Your task to perform on an android device: allow notifications from all sites in the chrome app Image 0: 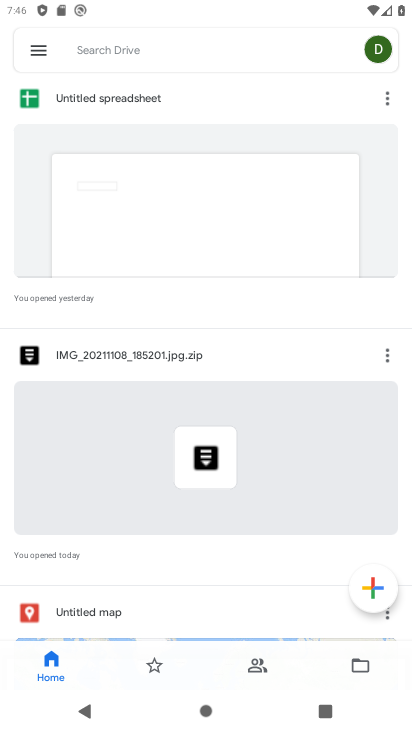
Step 0: press home button
Your task to perform on an android device: allow notifications from all sites in the chrome app Image 1: 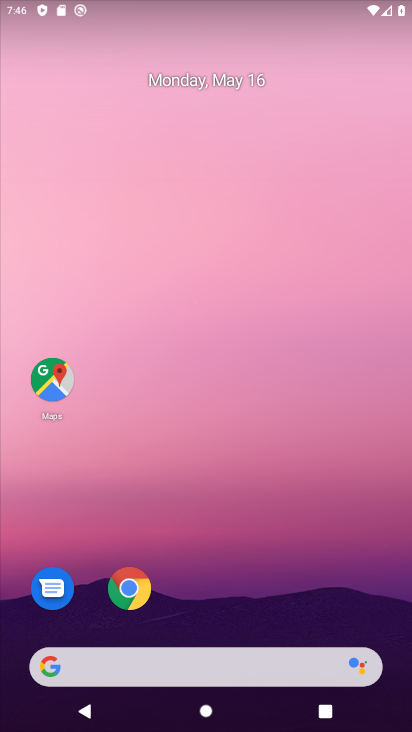
Step 1: click (126, 581)
Your task to perform on an android device: allow notifications from all sites in the chrome app Image 2: 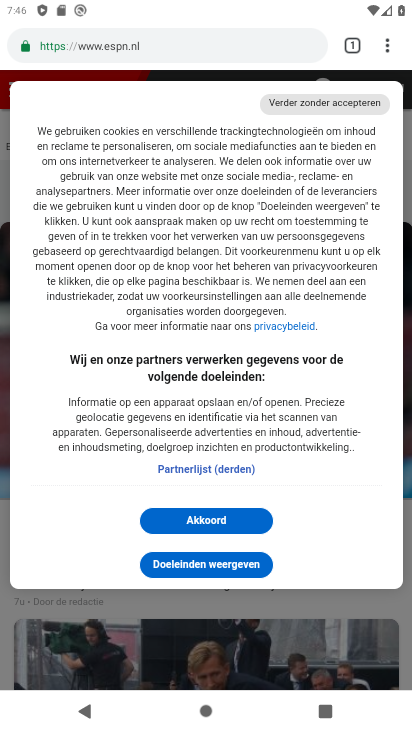
Step 2: drag from (393, 34) to (209, 505)
Your task to perform on an android device: allow notifications from all sites in the chrome app Image 3: 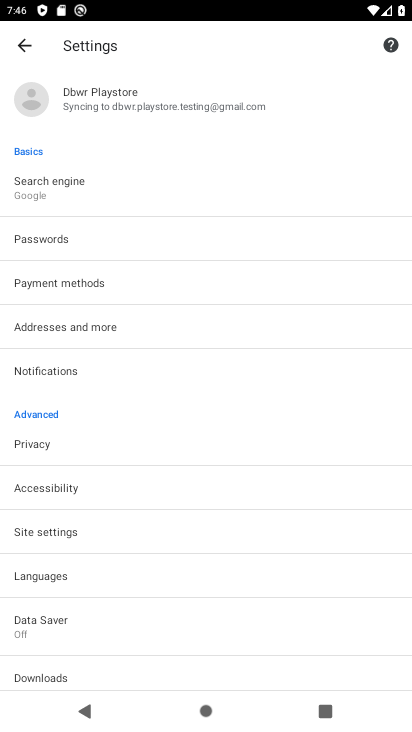
Step 3: click (64, 381)
Your task to perform on an android device: allow notifications from all sites in the chrome app Image 4: 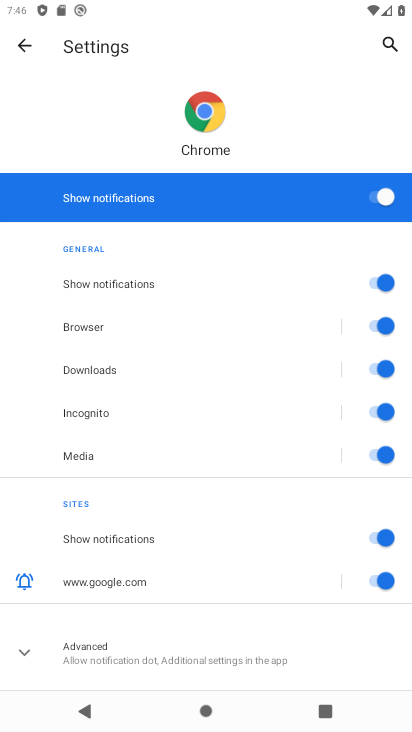
Step 4: drag from (205, 569) to (237, 273)
Your task to perform on an android device: allow notifications from all sites in the chrome app Image 5: 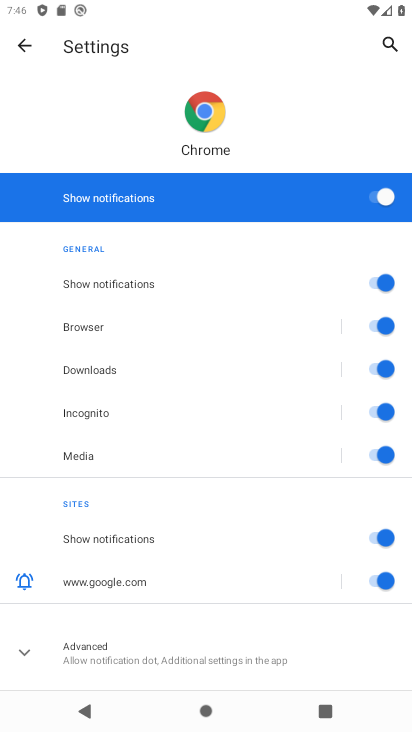
Step 5: click (88, 649)
Your task to perform on an android device: allow notifications from all sites in the chrome app Image 6: 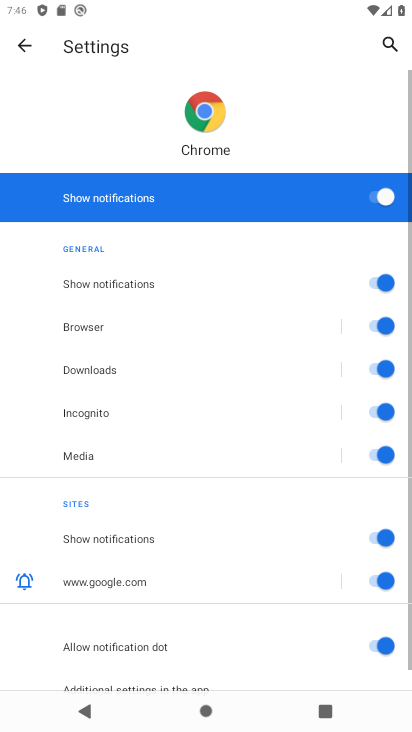
Step 6: task complete